Your task to perform on an android device: open app "Gmail" Image 0: 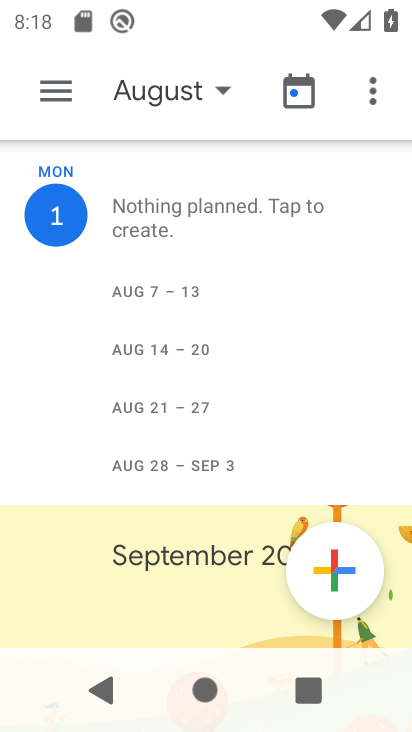
Step 0: press home button
Your task to perform on an android device: open app "Gmail" Image 1: 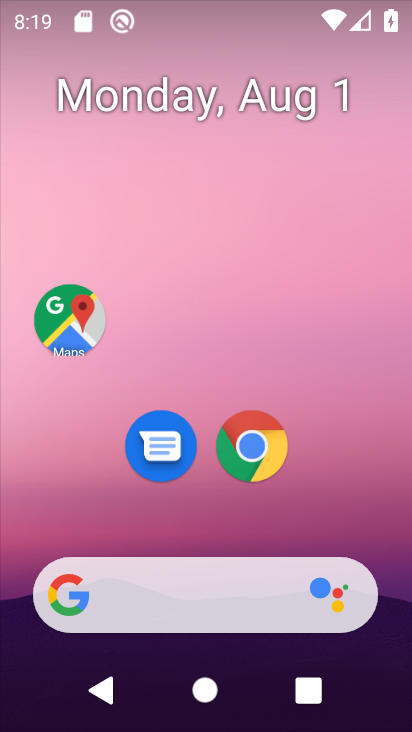
Step 1: drag from (199, 520) to (156, 108)
Your task to perform on an android device: open app "Gmail" Image 2: 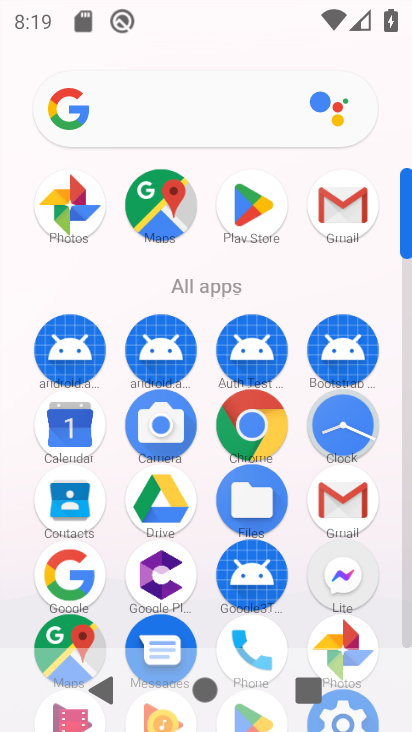
Step 2: click (235, 220)
Your task to perform on an android device: open app "Gmail" Image 3: 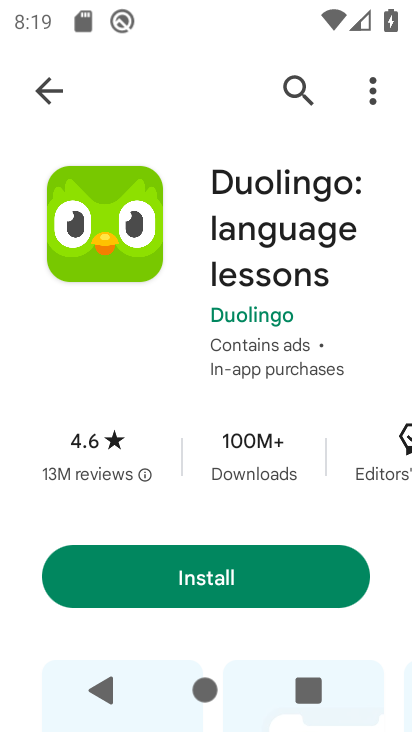
Step 3: click (300, 83)
Your task to perform on an android device: open app "Gmail" Image 4: 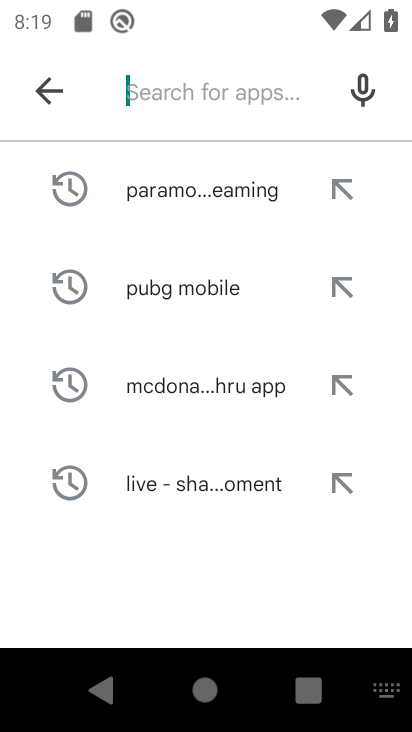
Step 4: type "Gmail"
Your task to perform on an android device: open app "Gmail" Image 5: 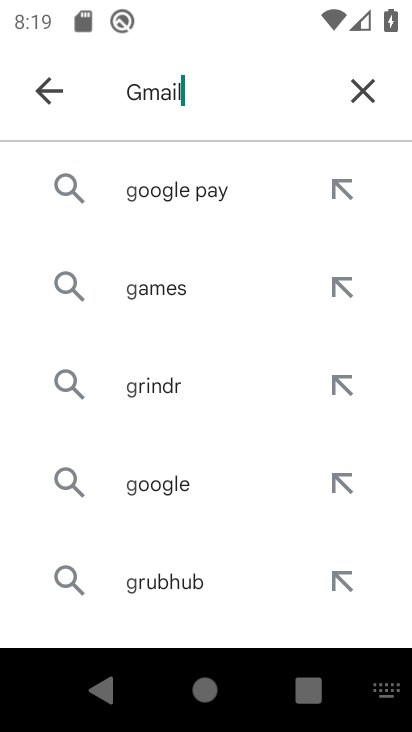
Step 5: type ""
Your task to perform on an android device: open app "Gmail" Image 6: 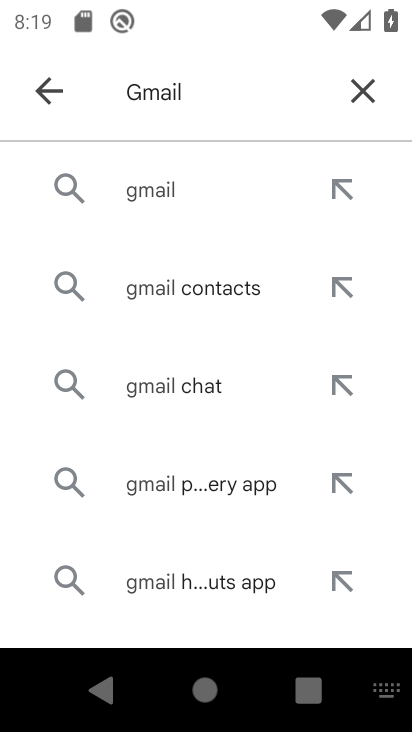
Step 6: click (195, 189)
Your task to perform on an android device: open app "Gmail" Image 7: 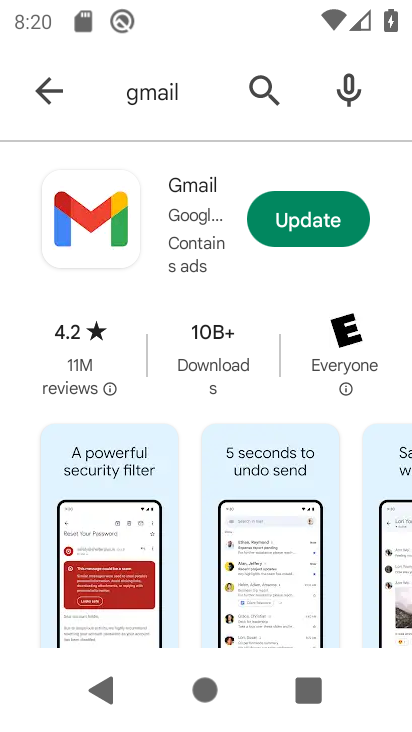
Step 7: click (164, 203)
Your task to perform on an android device: open app "Gmail" Image 8: 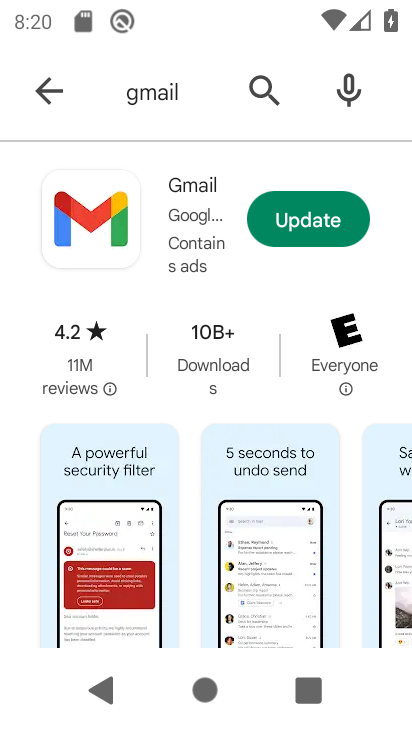
Step 8: click (304, 218)
Your task to perform on an android device: open app "Gmail" Image 9: 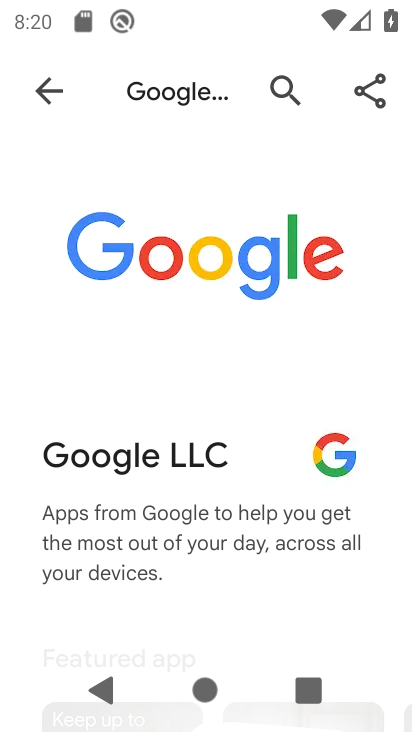
Step 9: click (28, 90)
Your task to perform on an android device: open app "Gmail" Image 10: 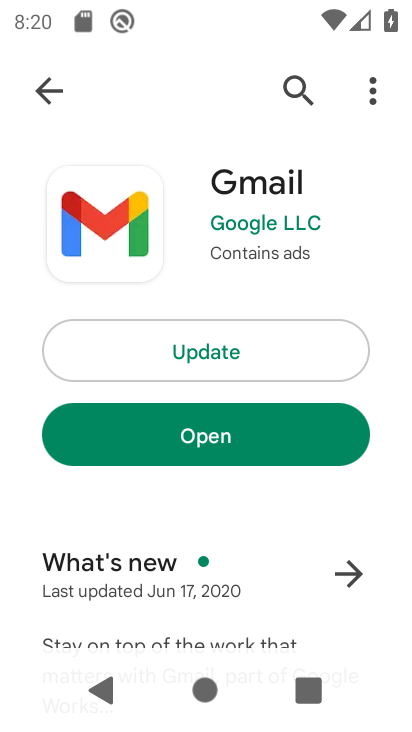
Step 10: click (254, 432)
Your task to perform on an android device: open app "Gmail" Image 11: 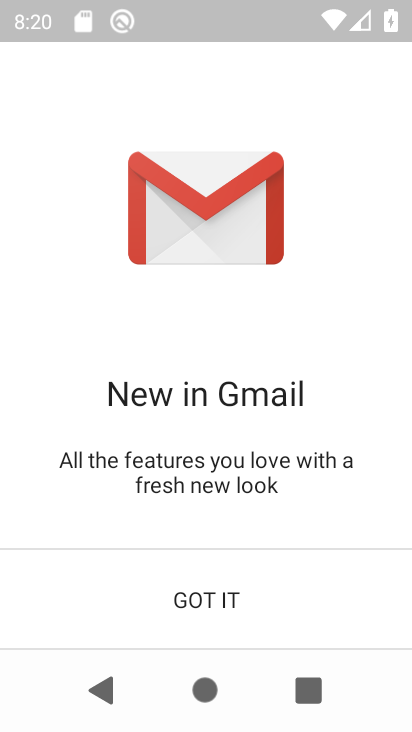
Step 11: task complete